Your task to perform on an android device: Go to Amazon Image 0: 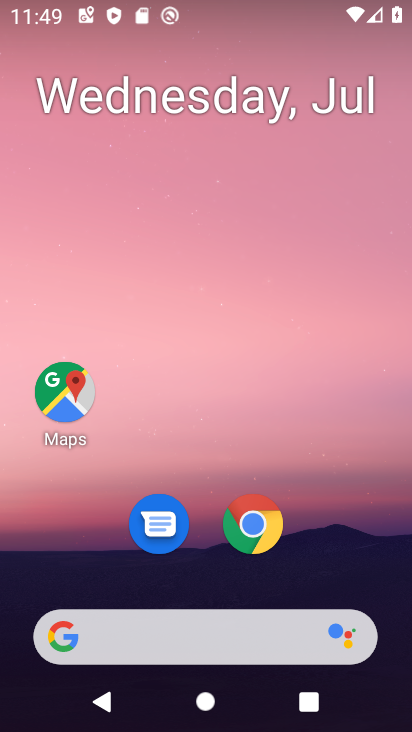
Step 0: click (255, 536)
Your task to perform on an android device: Go to Amazon Image 1: 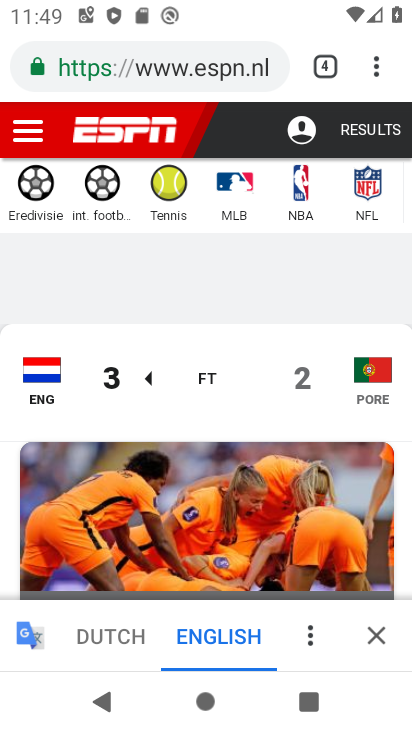
Step 1: drag from (374, 66) to (309, 137)
Your task to perform on an android device: Go to Amazon Image 2: 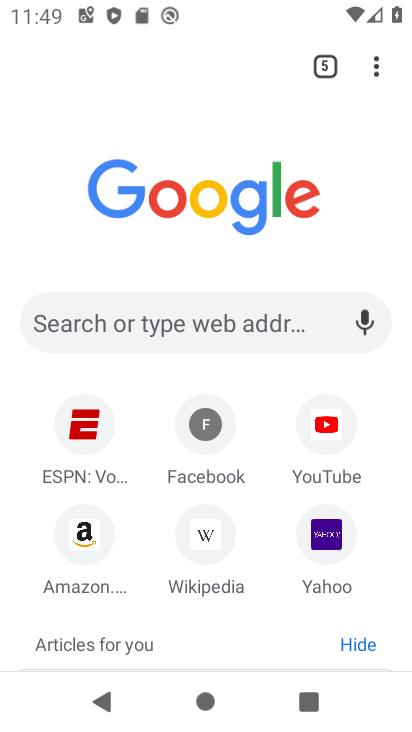
Step 2: click (83, 544)
Your task to perform on an android device: Go to Amazon Image 3: 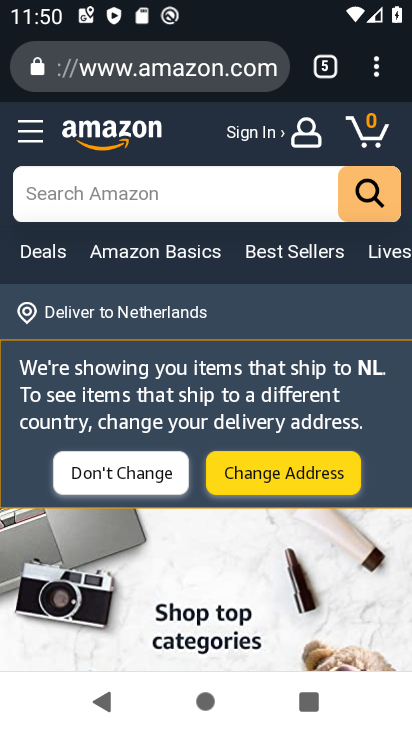
Step 3: task complete